Your task to perform on an android device: Open calendar and show me the first week of next month Image 0: 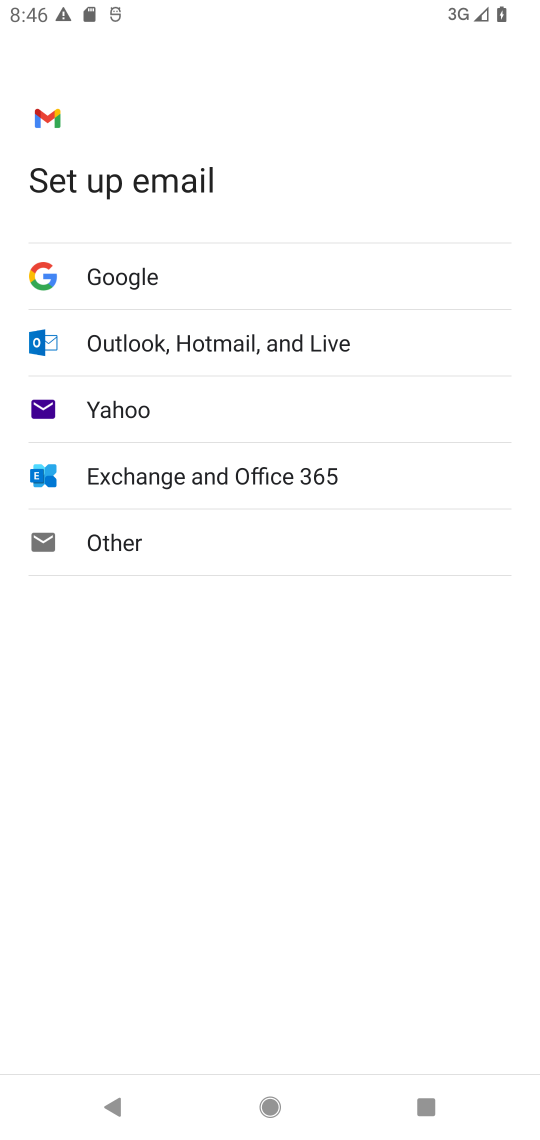
Step 0: press home button
Your task to perform on an android device: Open calendar and show me the first week of next month Image 1: 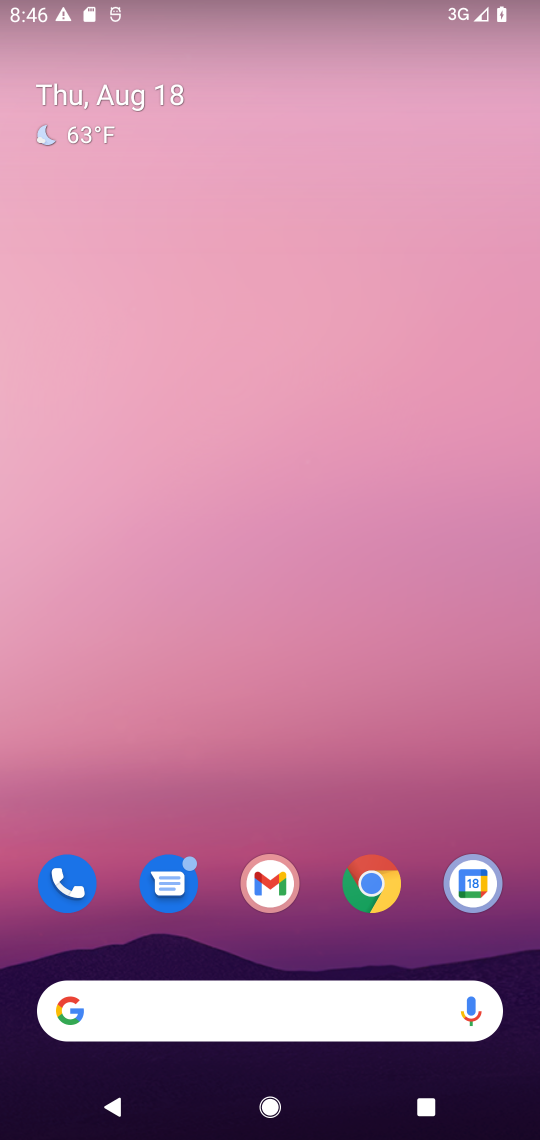
Step 1: click (470, 877)
Your task to perform on an android device: Open calendar and show me the first week of next month Image 2: 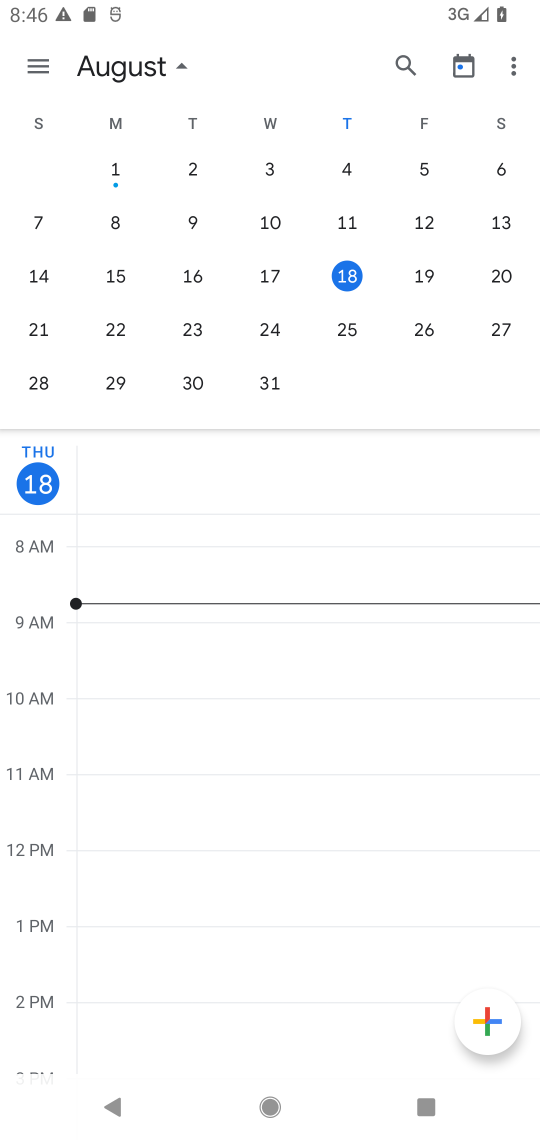
Step 2: task complete